Your task to perform on an android device: turn notification dots off Image 0: 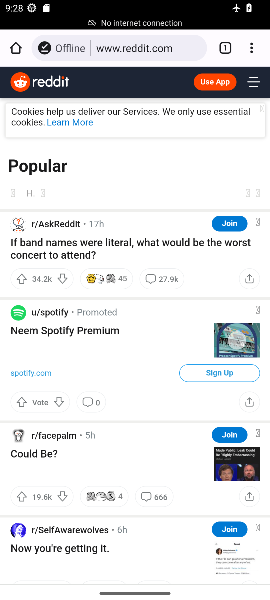
Step 0: press home button
Your task to perform on an android device: turn notification dots off Image 1: 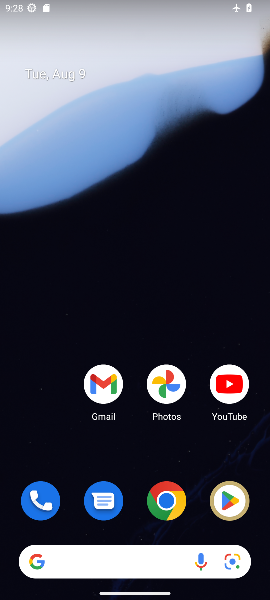
Step 1: drag from (137, 493) to (117, 20)
Your task to perform on an android device: turn notification dots off Image 2: 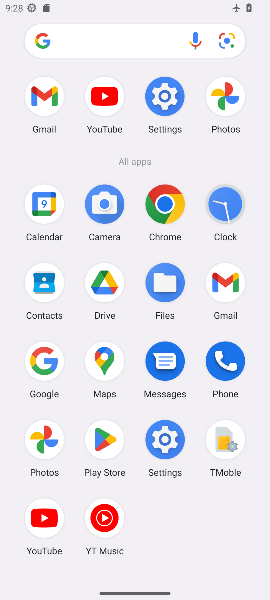
Step 2: click (166, 98)
Your task to perform on an android device: turn notification dots off Image 3: 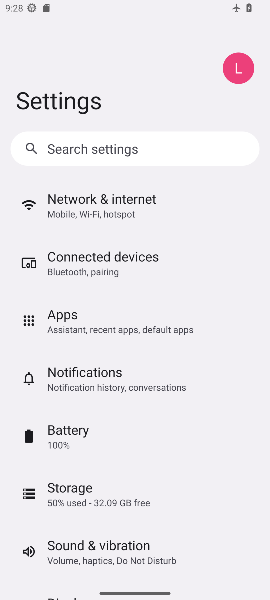
Step 3: click (98, 386)
Your task to perform on an android device: turn notification dots off Image 4: 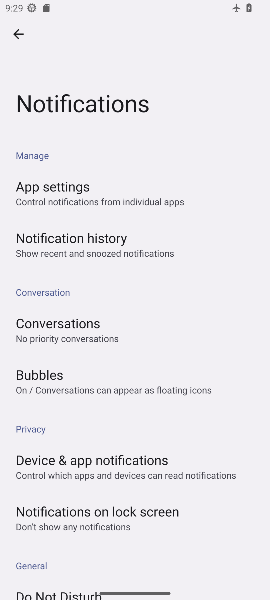
Step 4: drag from (95, 518) to (153, 47)
Your task to perform on an android device: turn notification dots off Image 5: 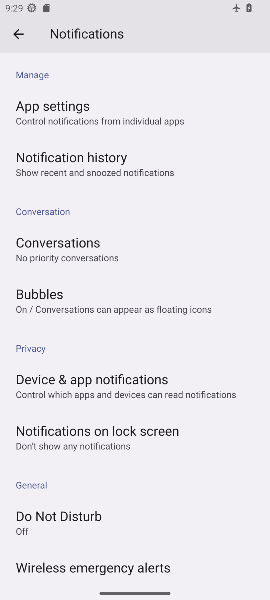
Step 5: drag from (118, 483) to (145, 263)
Your task to perform on an android device: turn notification dots off Image 6: 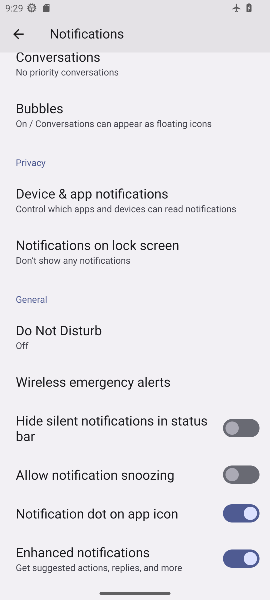
Step 6: click (240, 554)
Your task to perform on an android device: turn notification dots off Image 7: 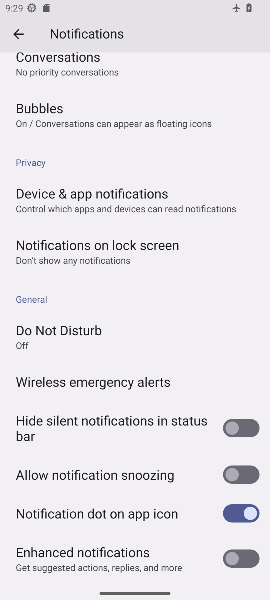
Step 7: click (235, 514)
Your task to perform on an android device: turn notification dots off Image 8: 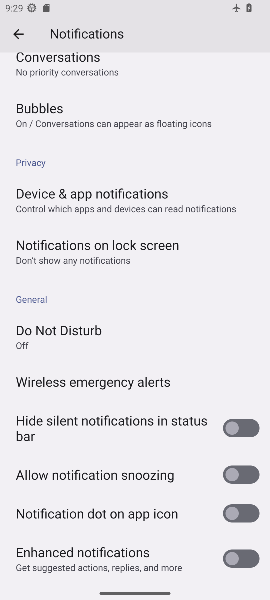
Step 8: task complete